Your task to perform on an android device: Go to notification settings Image 0: 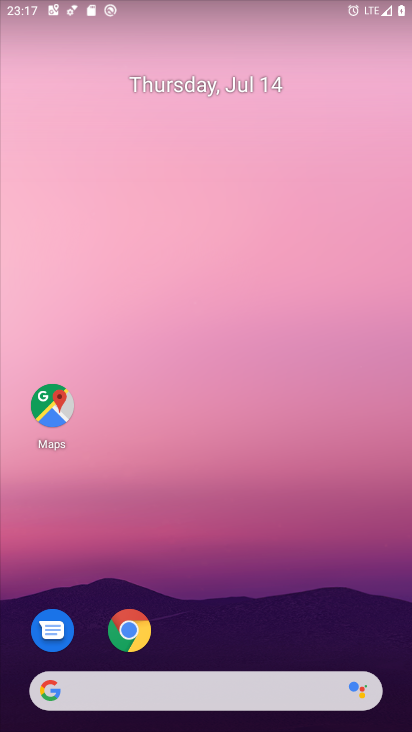
Step 0: drag from (215, 443) to (219, 288)
Your task to perform on an android device: Go to notification settings Image 1: 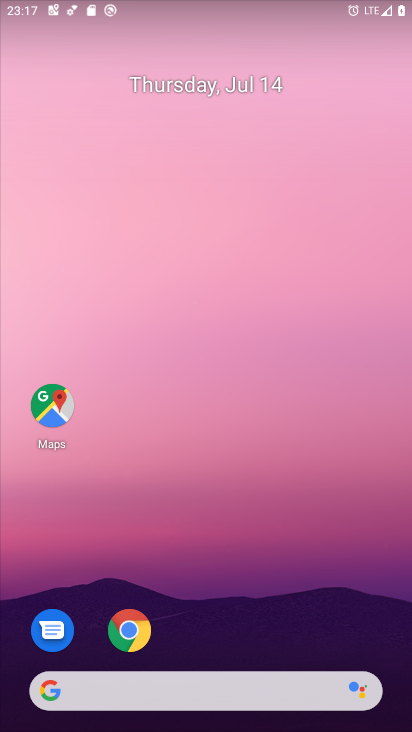
Step 1: drag from (206, 646) to (261, 162)
Your task to perform on an android device: Go to notification settings Image 2: 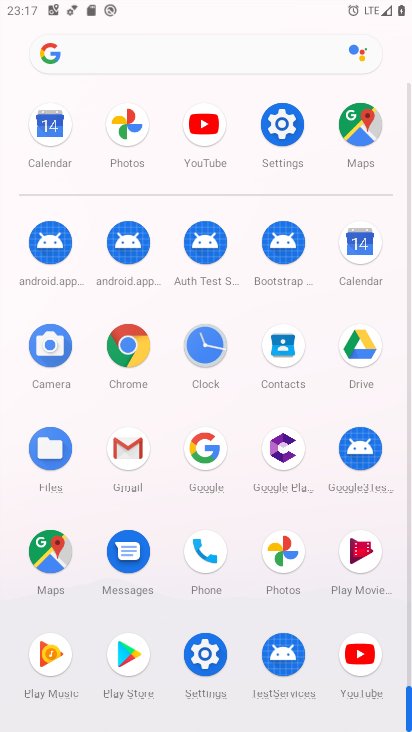
Step 2: click (198, 656)
Your task to perform on an android device: Go to notification settings Image 3: 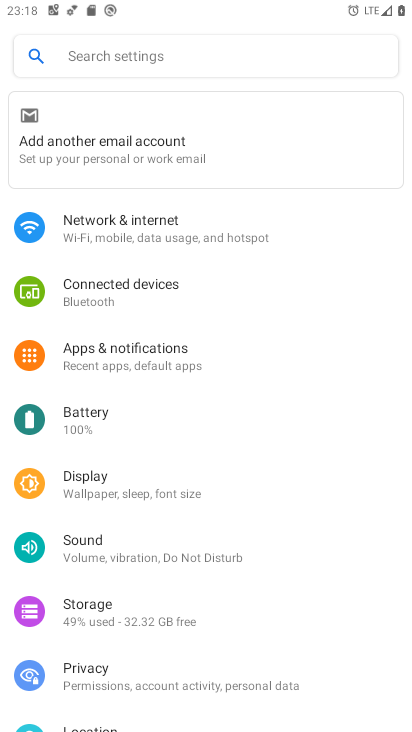
Step 3: click (151, 275)
Your task to perform on an android device: Go to notification settings Image 4: 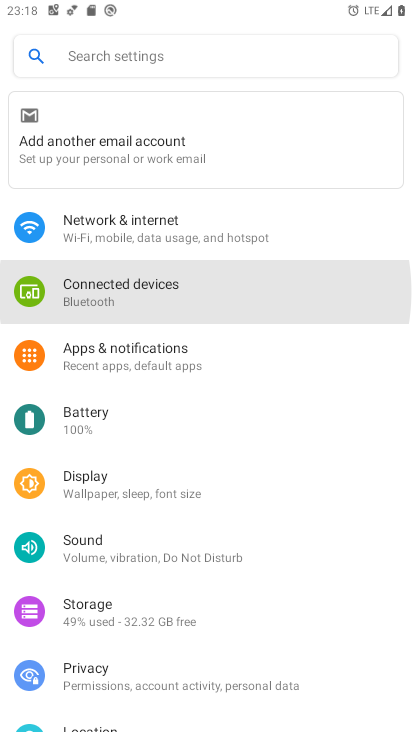
Step 4: click (222, 652)
Your task to perform on an android device: Go to notification settings Image 5: 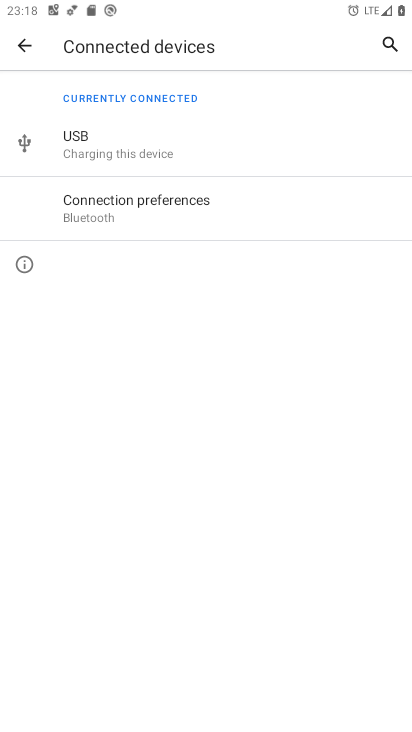
Step 5: click (29, 50)
Your task to perform on an android device: Go to notification settings Image 6: 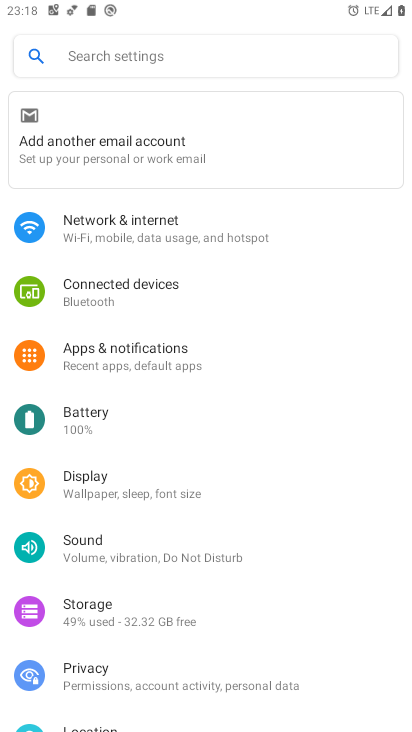
Step 6: click (129, 349)
Your task to perform on an android device: Go to notification settings Image 7: 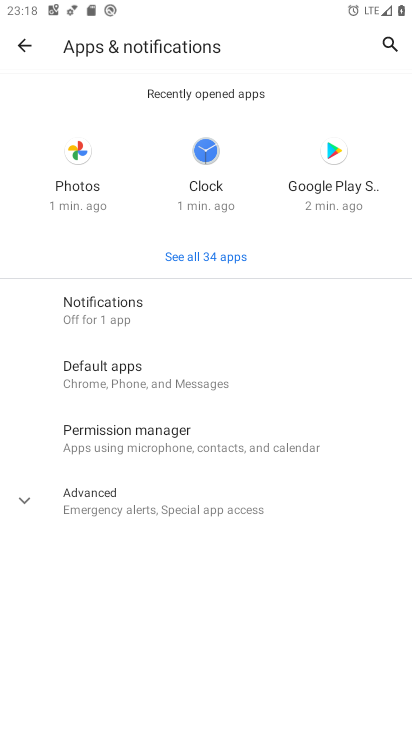
Step 7: click (117, 308)
Your task to perform on an android device: Go to notification settings Image 8: 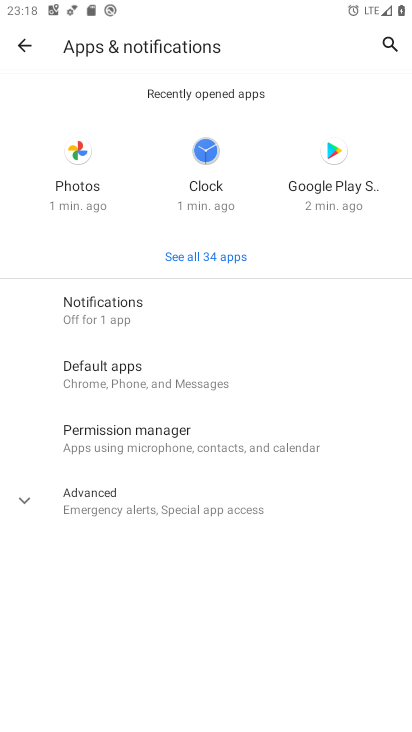
Step 8: task complete